Your task to perform on an android device: Show me the best rated 42 inch TV on Walmart. Image 0: 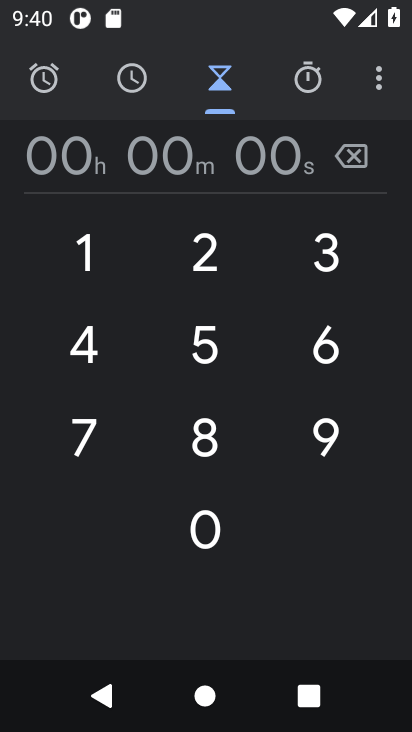
Step 0: task complete